Your task to perform on an android device: move a message to another label in the gmail app Image 0: 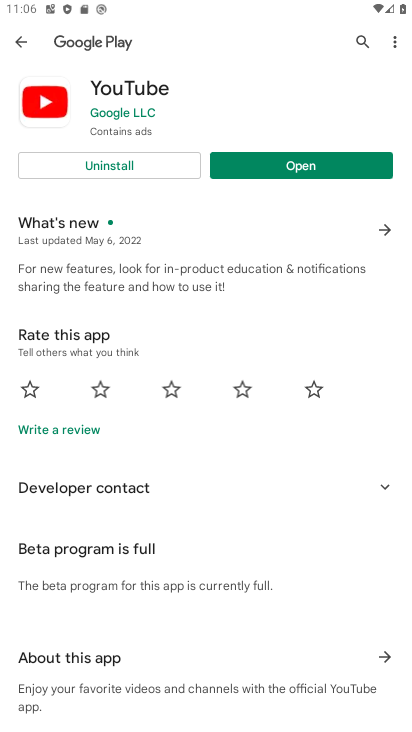
Step 0: press home button
Your task to perform on an android device: move a message to another label in the gmail app Image 1: 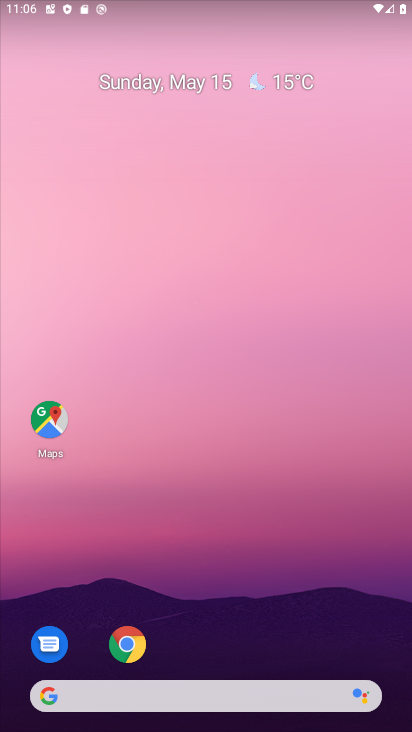
Step 1: drag from (243, 360) to (201, 51)
Your task to perform on an android device: move a message to another label in the gmail app Image 2: 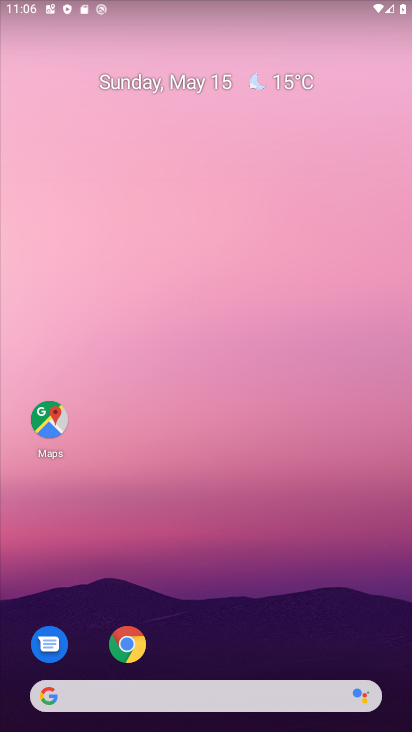
Step 2: drag from (184, 502) to (176, 21)
Your task to perform on an android device: move a message to another label in the gmail app Image 3: 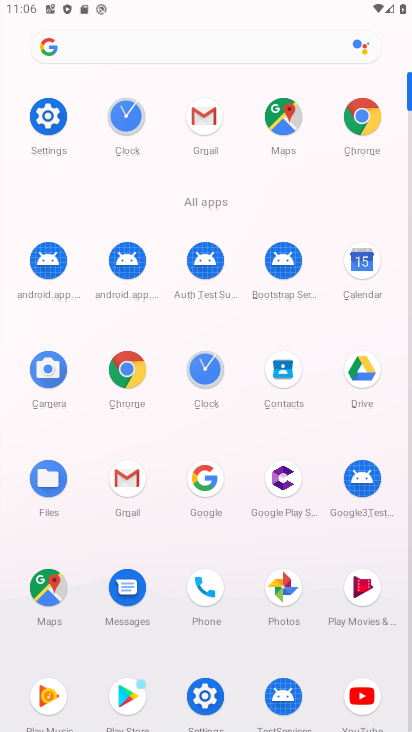
Step 3: click (202, 110)
Your task to perform on an android device: move a message to another label in the gmail app Image 4: 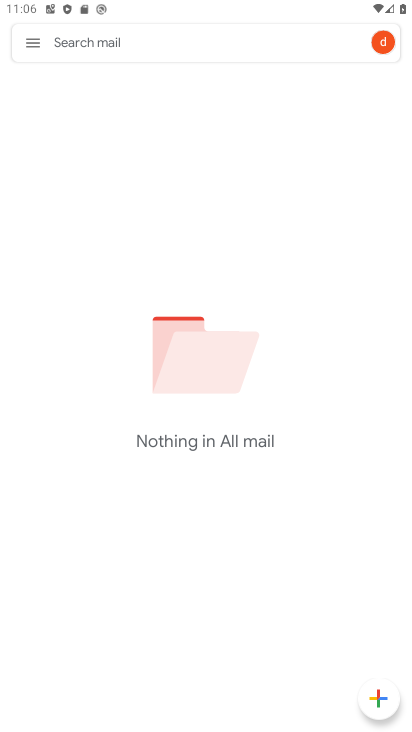
Step 4: click (25, 41)
Your task to perform on an android device: move a message to another label in the gmail app Image 5: 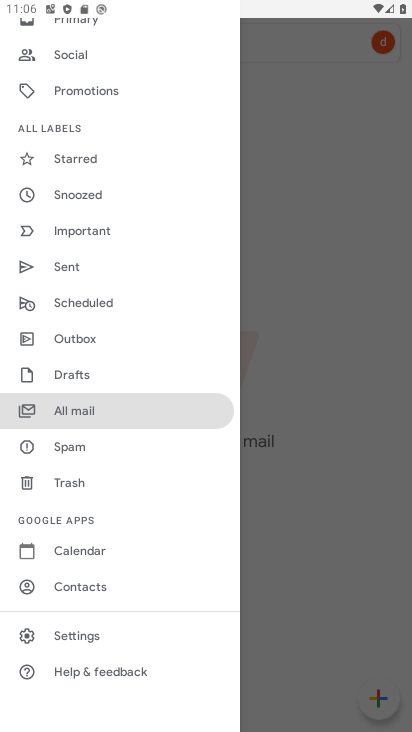
Step 5: click (131, 414)
Your task to perform on an android device: move a message to another label in the gmail app Image 6: 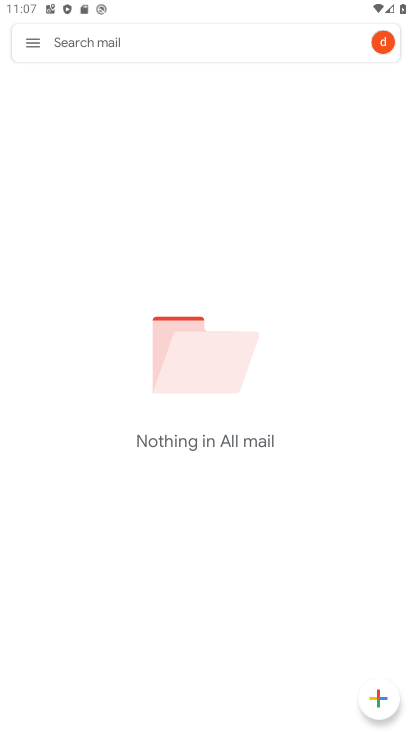
Step 6: task complete